Your task to perform on an android device: change text size in settings app Image 0: 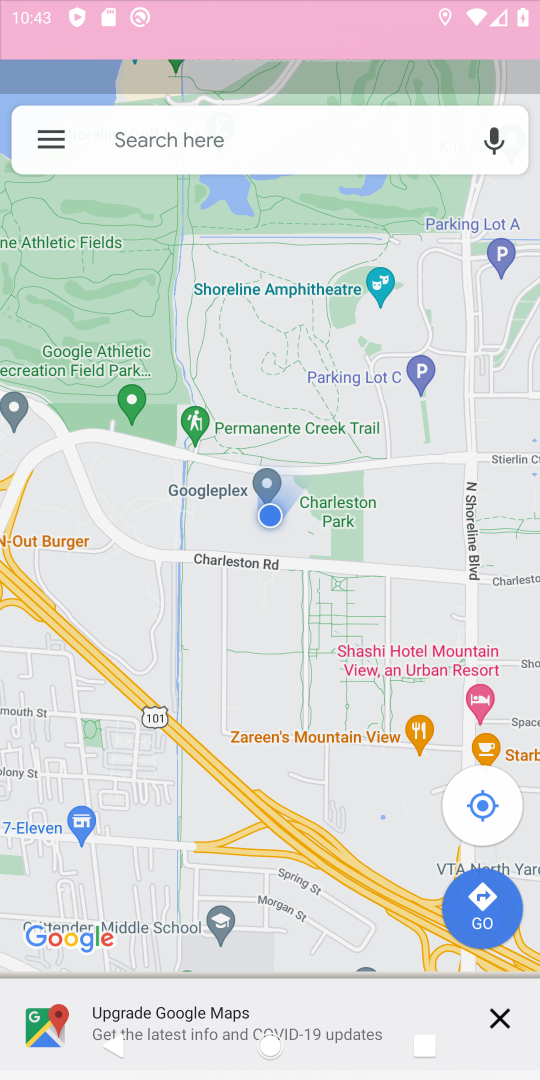
Step 0: press home button
Your task to perform on an android device: change text size in settings app Image 1: 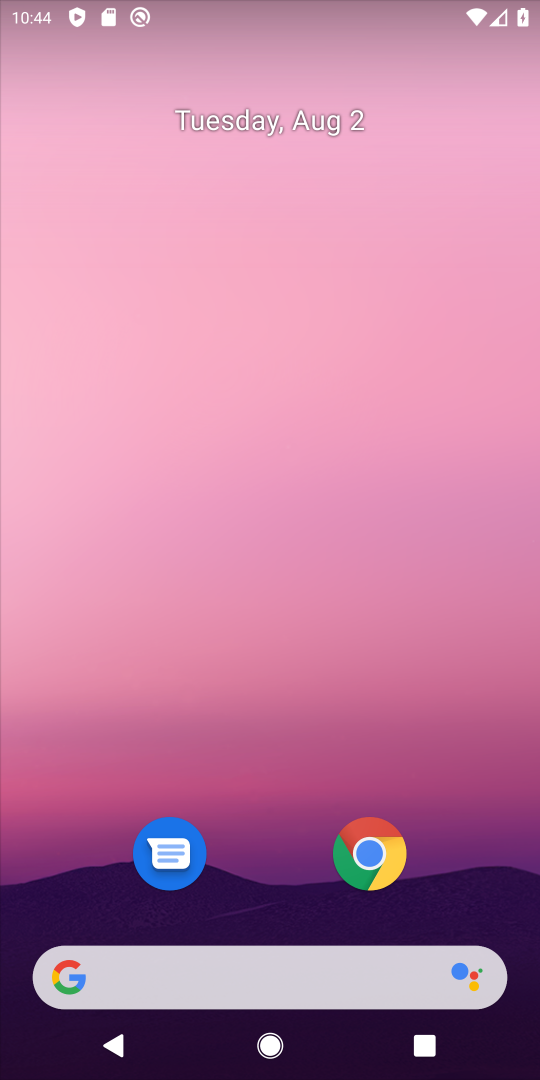
Step 1: drag from (244, 790) to (239, 270)
Your task to perform on an android device: change text size in settings app Image 2: 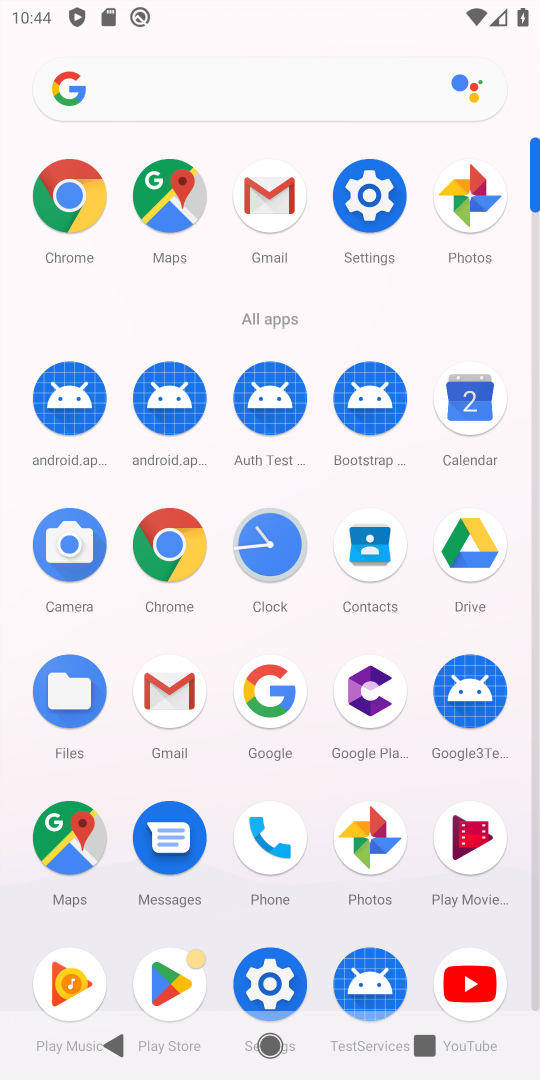
Step 2: click (267, 961)
Your task to perform on an android device: change text size in settings app Image 3: 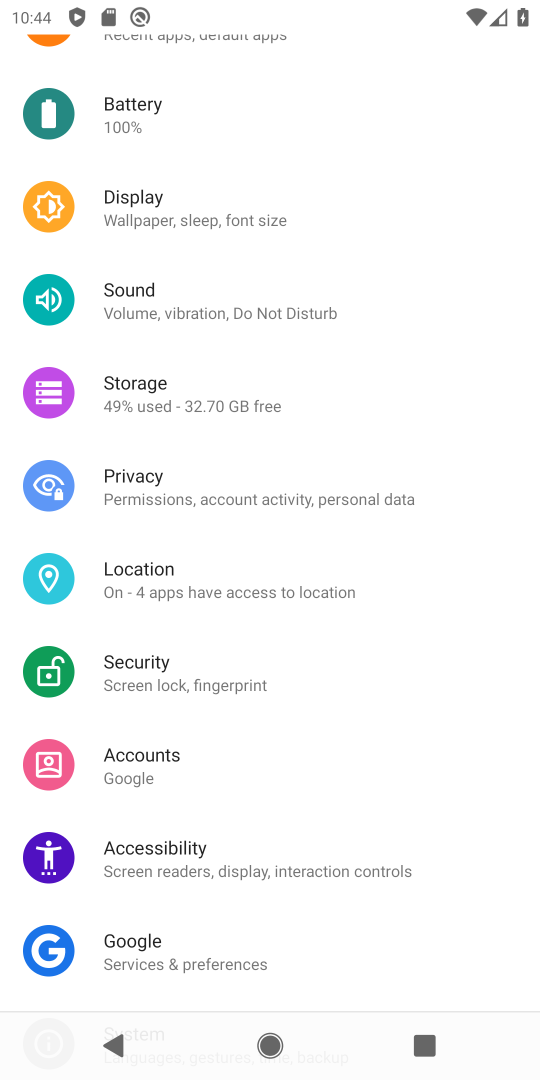
Step 3: click (223, 197)
Your task to perform on an android device: change text size in settings app Image 4: 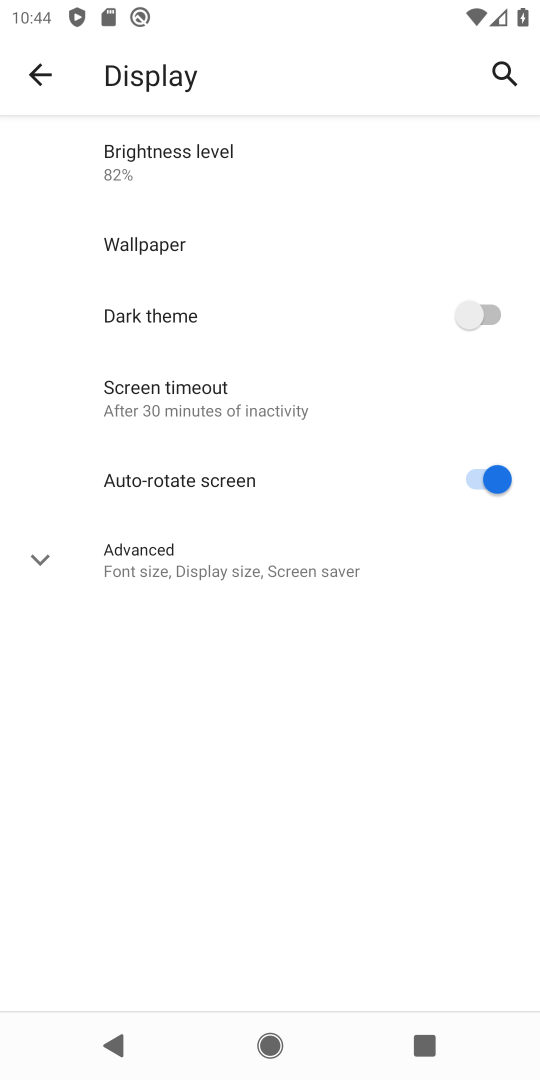
Step 4: click (241, 565)
Your task to perform on an android device: change text size in settings app Image 5: 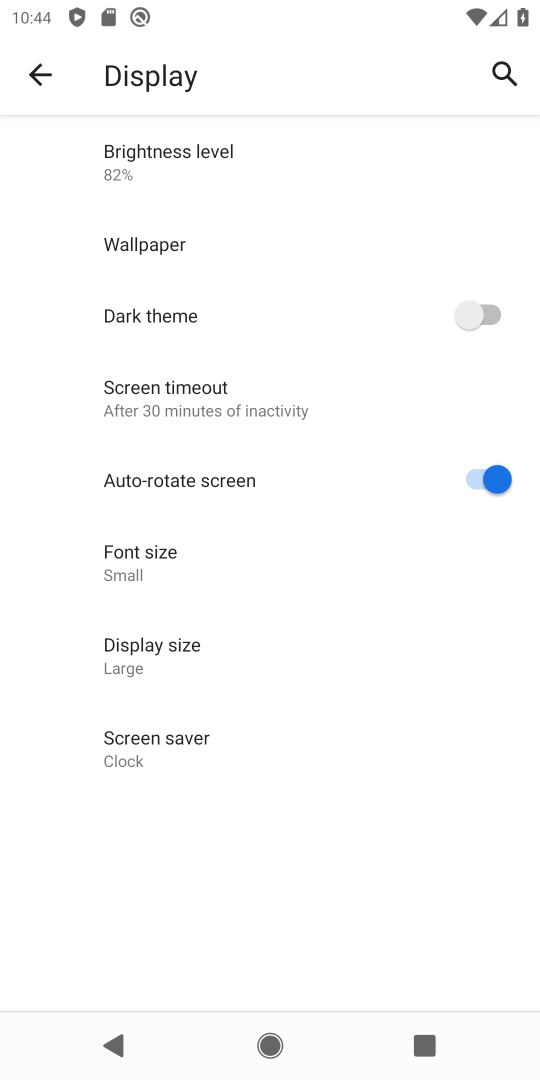
Step 5: click (181, 560)
Your task to perform on an android device: change text size in settings app Image 6: 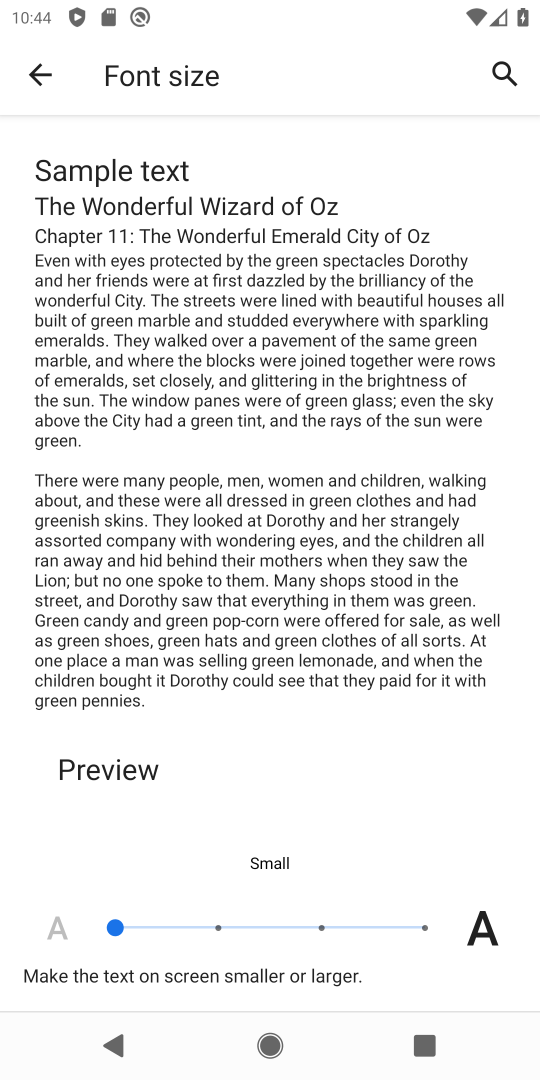
Step 6: click (208, 921)
Your task to perform on an android device: change text size in settings app Image 7: 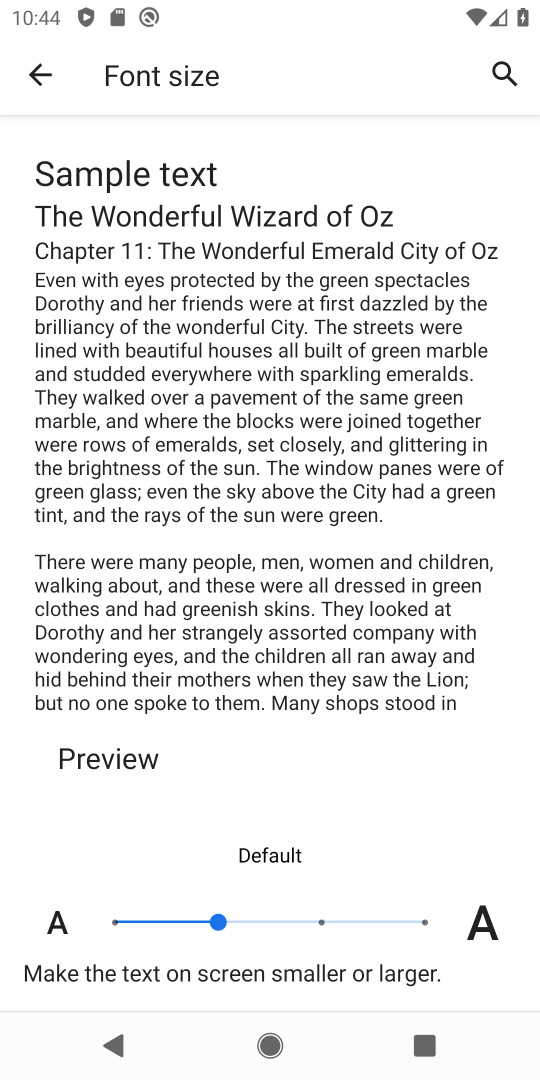
Step 7: task complete